Your task to perform on an android device: Open Amazon Image 0: 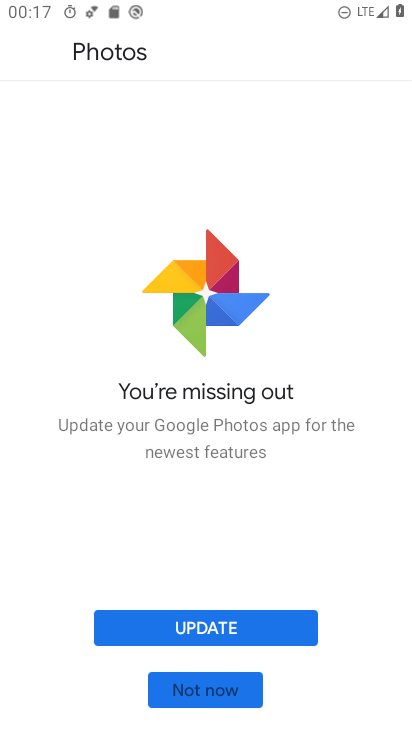
Step 0: press home button
Your task to perform on an android device: Open Amazon Image 1: 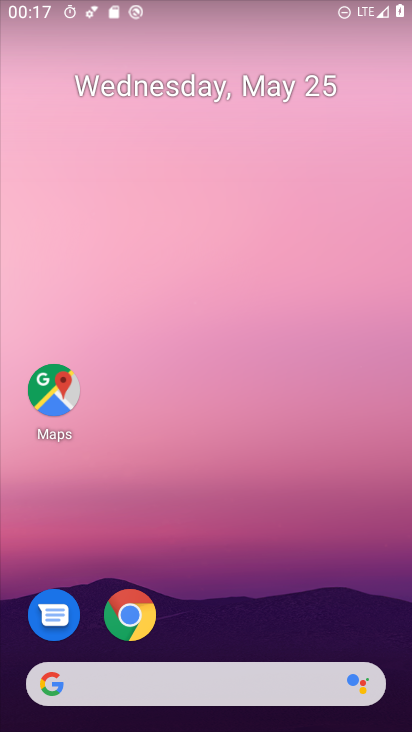
Step 1: drag from (249, 669) to (386, 107)
Your task to perform on an android device: Open Amazon Image 2: 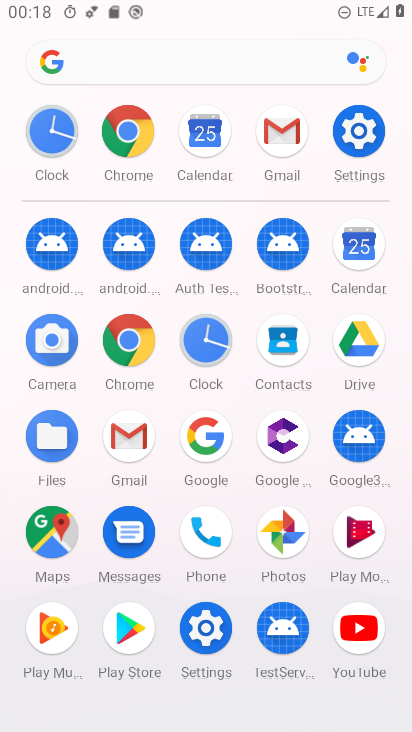
Step 2: click (131, 140)
Your task to perform on an android device: Open Amazon Image 3: 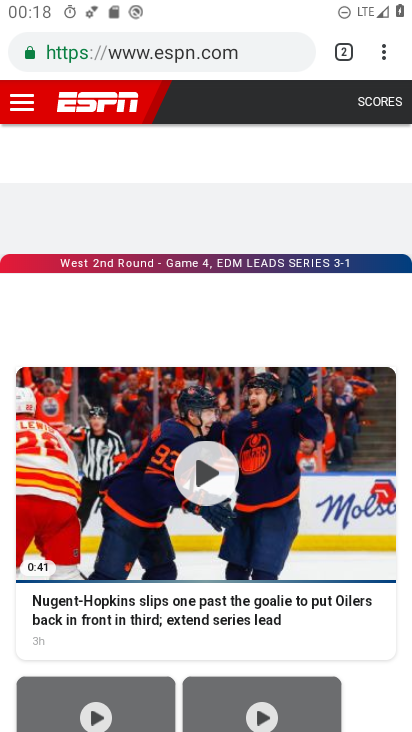
Step 3: click (334, 57)
Your task to perform on an android device: Open Amazon Image 4: 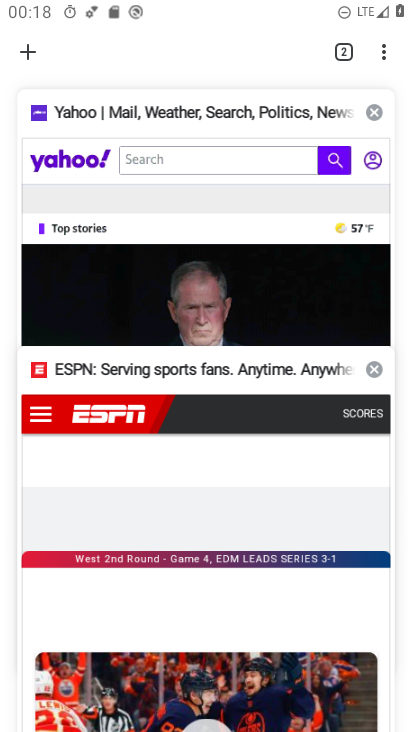
Step 4: click (35, 54)
Your task to perform on an android device: Open Amazon Image 5: 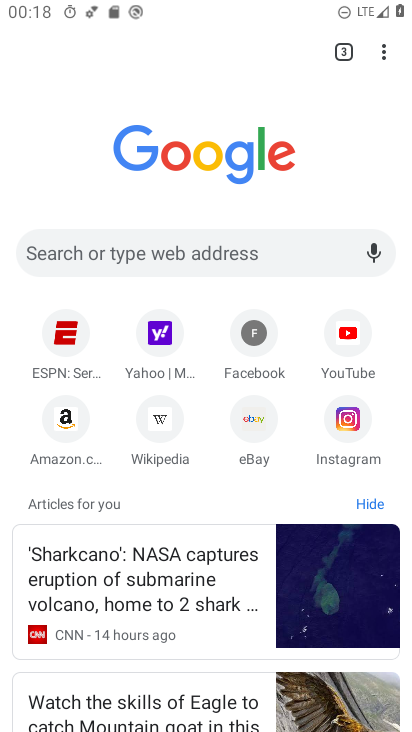
Step 5: click (59, 425)
Your task to perform on an android device: Open Amazon Image 6: 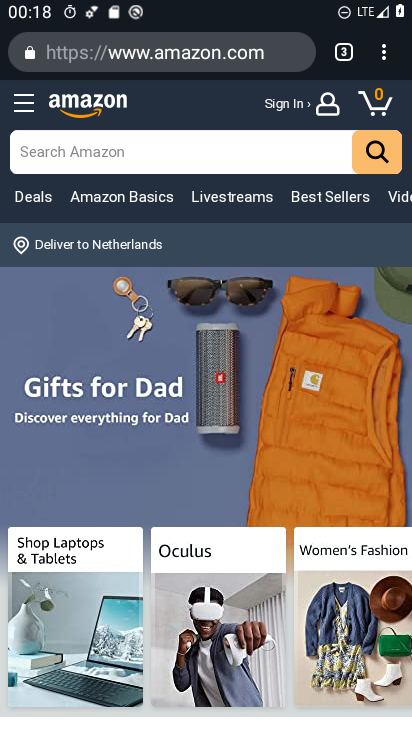
Step 6: task complete